Your task to perform on an android device: turn on wifi Image 0: 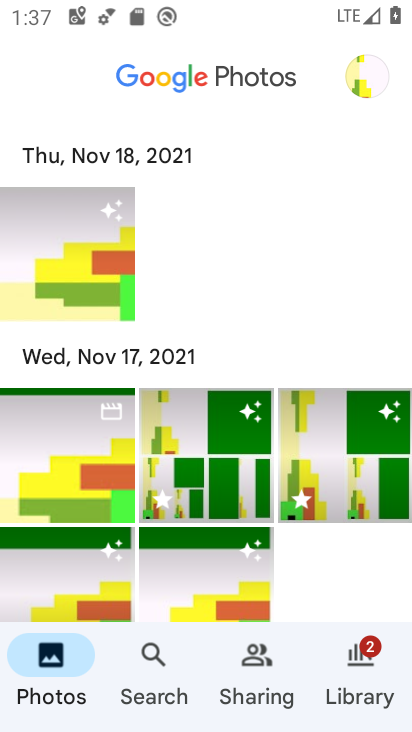
Step 0: drag from (216, 610) to (311, 142)
Your task to perform on an android device: turn on wifi Image 1: 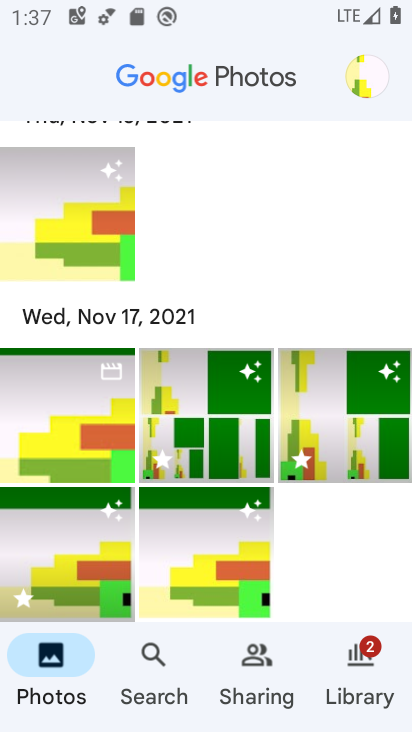
Step 1: press home button
Your task to perform on an android device: turn on wifi Image 2: 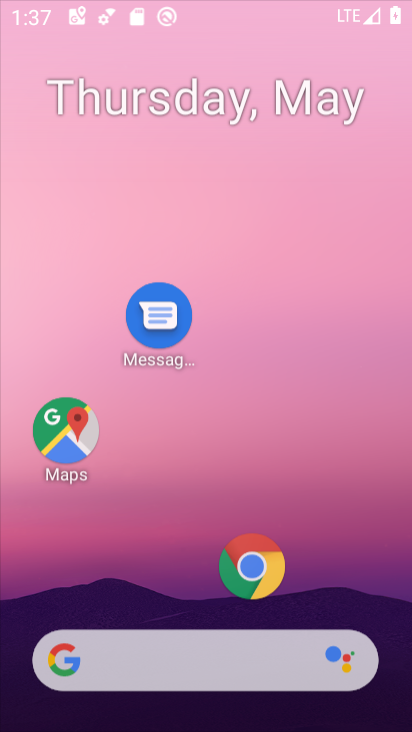
Step 2: drag from (200, 551) to (279, 28)
Your task to perform on an android device: turn on wifi Image 3: 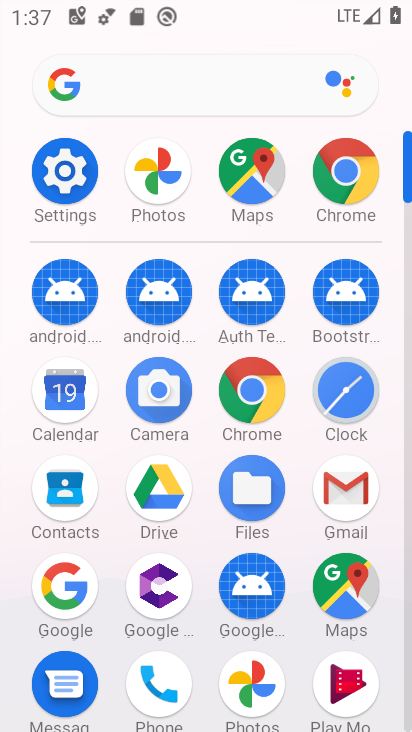
Step 3: click (64, 177)
Your task to perform on an android device: turn on wifi Image 4: 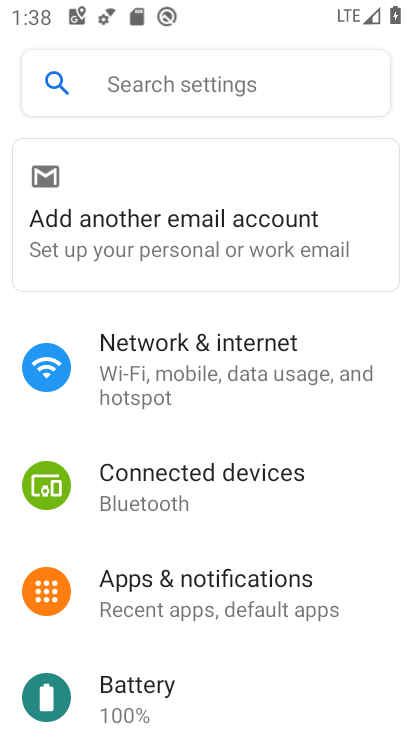
Step 4: click (160, 388)
Your task to perform on an android device: turn on wifi Image 5: 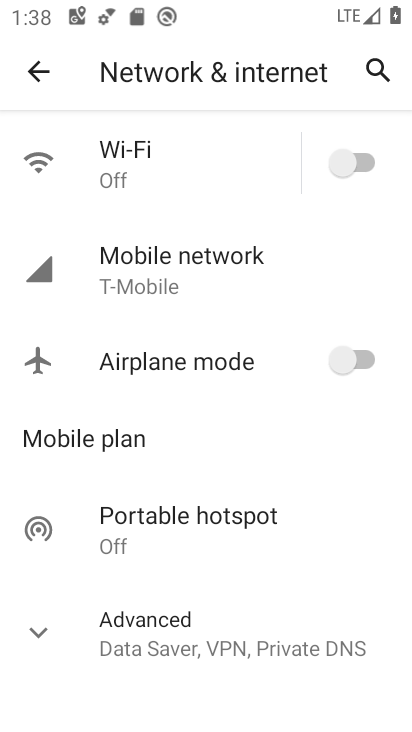
Step 5: click (182, 166)
Your task to perform on an android device: turn on wifi Image 6: 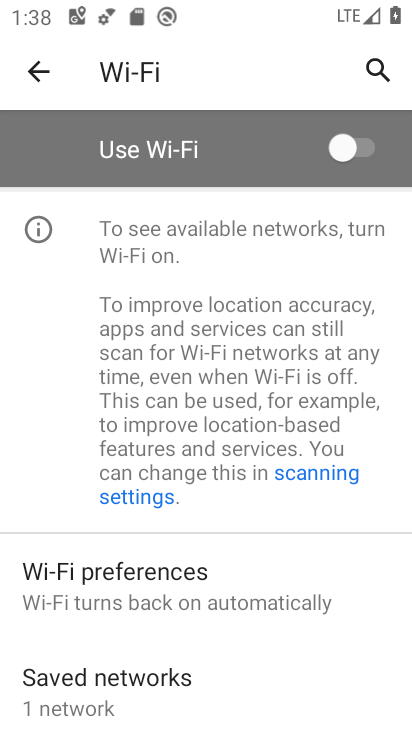
Step 6: click (300, 155)
Your task to perform on an android device: turn on wifi Image 7: 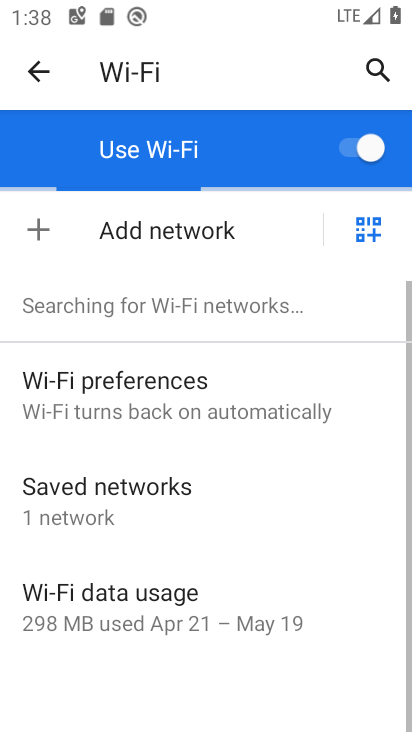
Step 7: task complete